Your task to perform on an android device: Go to display settings Image 0: 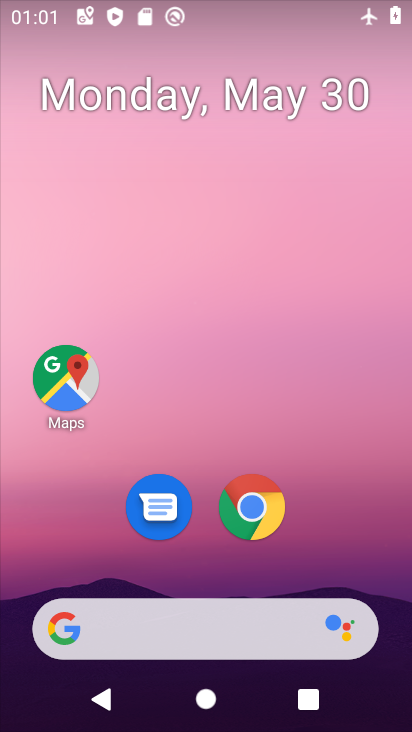
Step 0: drag from (319, 544) to (269, 185)
Your task to perform on an android device: Go to display settings Image 1: 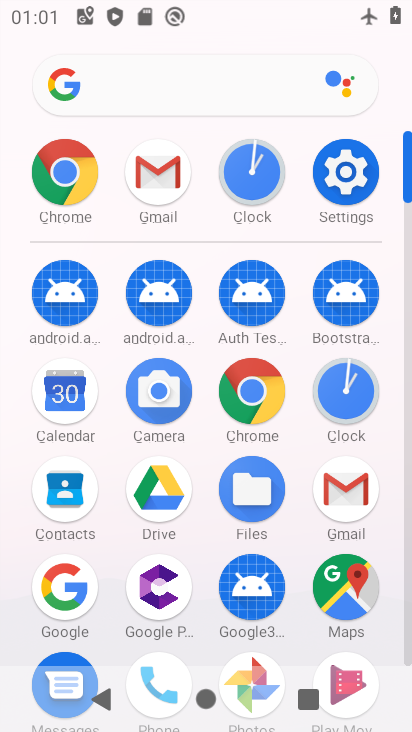
Step 1: click (341, 164)
Your task to perform on an android device: Go to display settings Image 2: 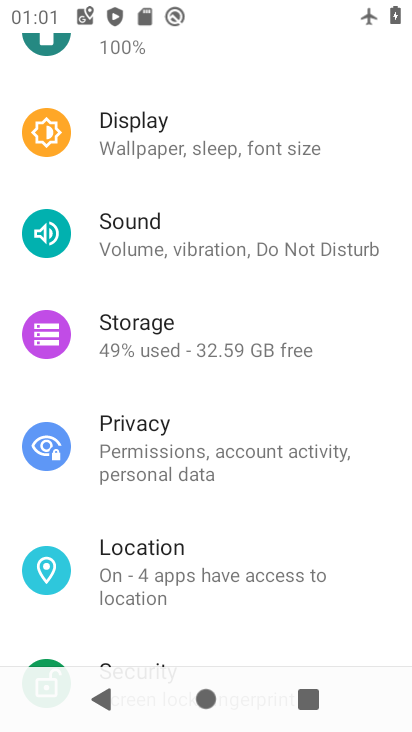
Step 2: click (154, 152)
Your task to perform on an android device: Go to display settings Image 3: 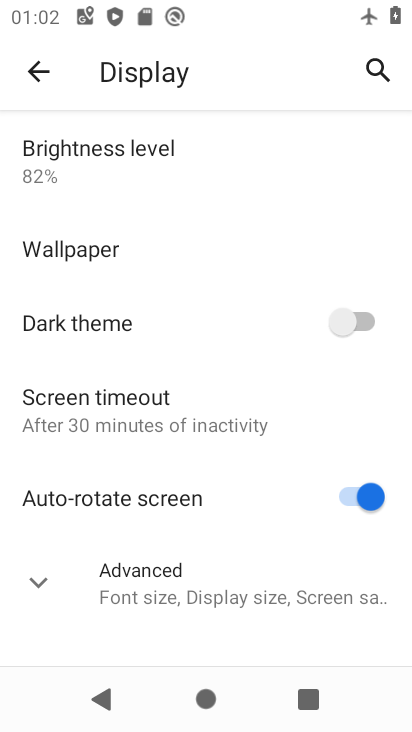
Step 3: task complete